Your task to perform on an android device: turn off smart reply in the gmail app Image 0: 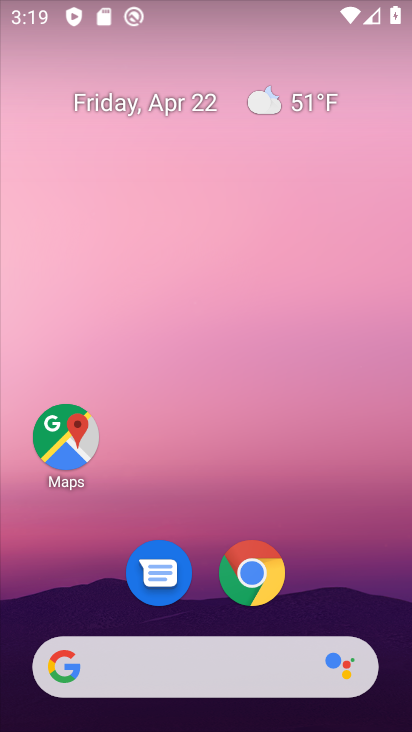
Step 0: drag from (304, 615) to (308, 151)
Your task to perform on an android device: turn off smart reply in the gmail app Image 1: 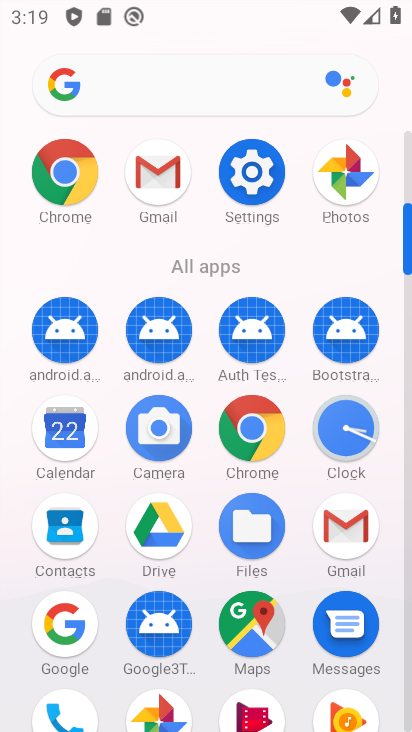
Step 1: click (336, 529)
Your task to perform on an android device: turn off smart reply in the gmail app Image 2: 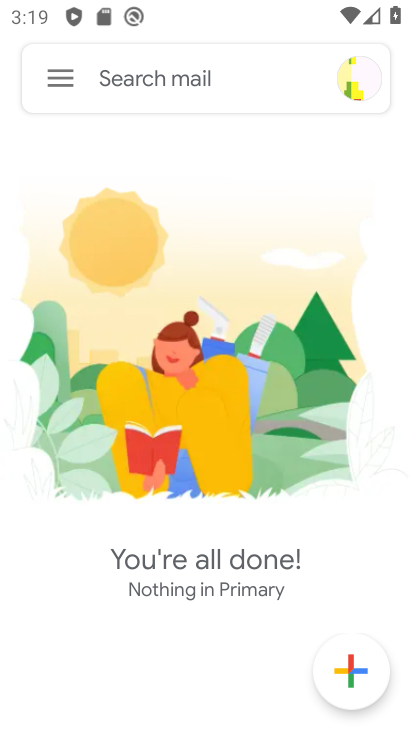
Step 2: click (69, 75)
Your task to perform on an android device: turn off smart reply in the gmail app Image 3: 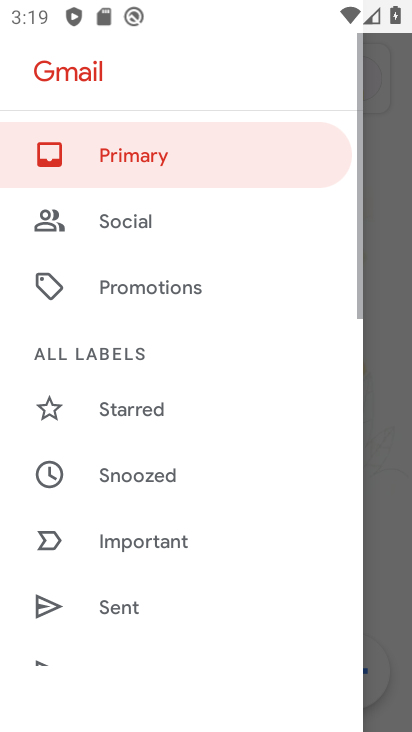
Step 3: drag from (245, 504) to (299, 110)
Your task to perform on an android device: turn off smart reply in the gmail app Image 4: 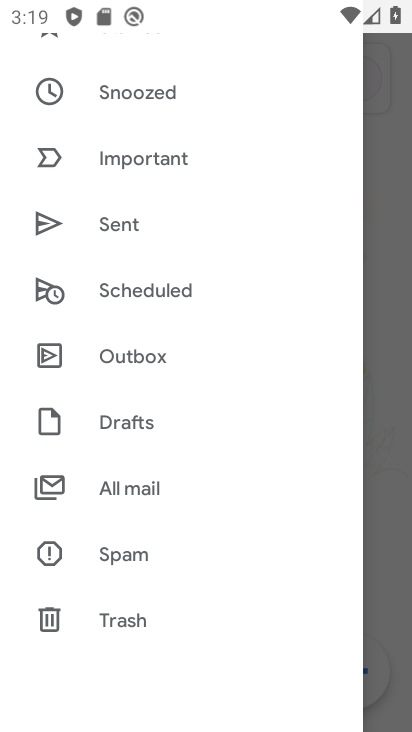
Step 4: drag from (193, 562) to (244, 194)
Your task to perform on an android device: turn off smart reply in the gmail app Image 5: 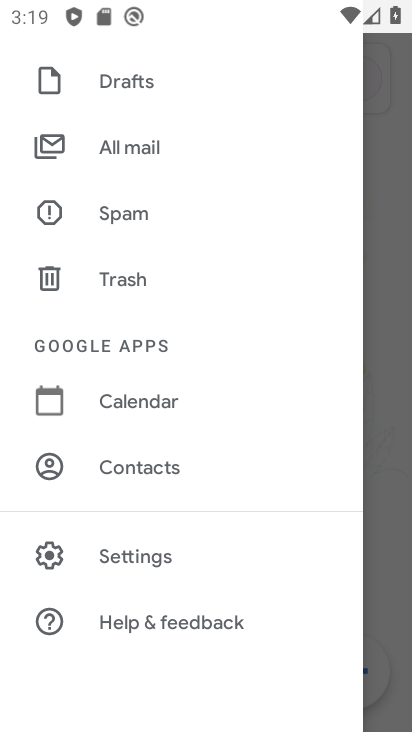
Step 5: click (187, 556)
Your task to perform on an android device: turn off smart reply in the gmail app Image 6: 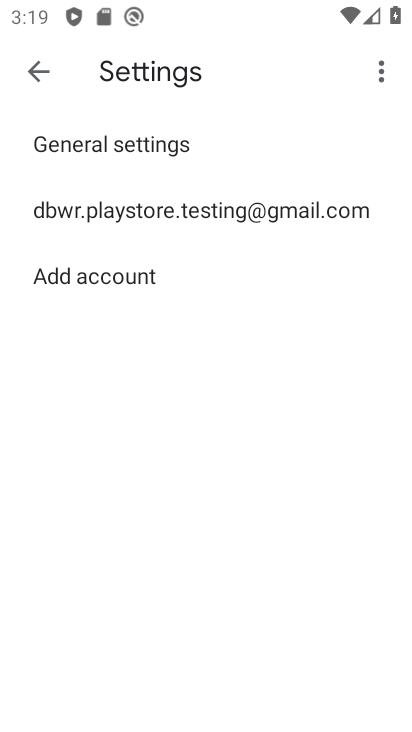
Step 6: click (229, 216)
Your task to perform on an android device: turn off smart reply in the gmail app Image 7: 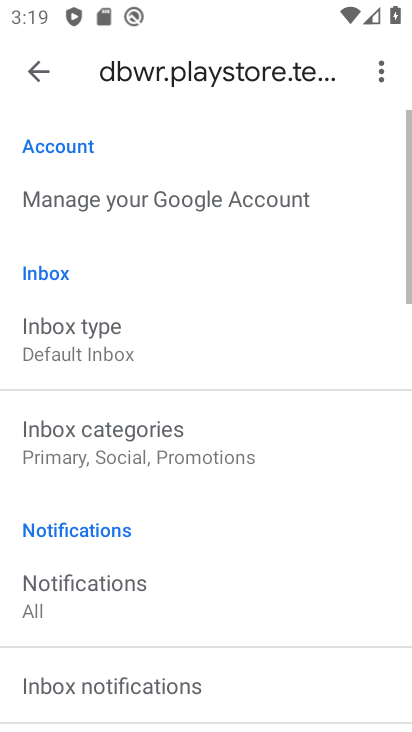
Step 7: drag from (196, 592) to (231, 170)
Your task to perform on an android device: turn off smart reply in the gmail app Image 8: 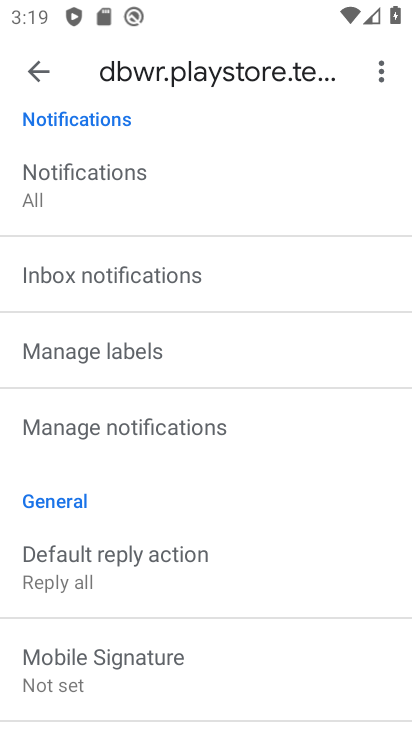
Step 8: drag from (226, 466) to (254, 164)
Your task to perform on an android device: turn off smart reply in the gmail app Image 9: 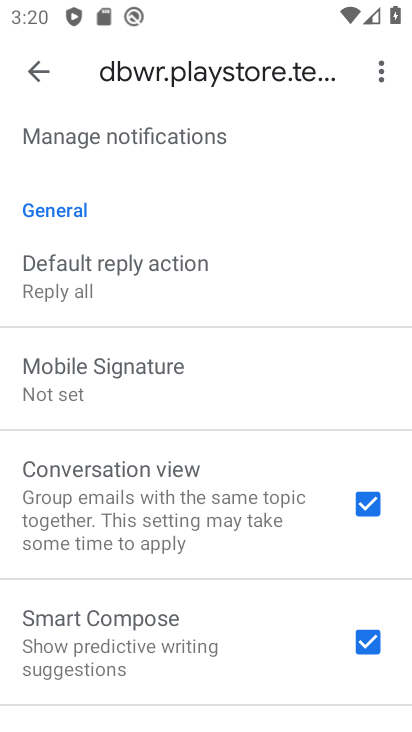
Step 9: drag from (255, 621) to (281, 157)
Your task to perform on an android device: turn off smart reply in the gmail app Image 10: 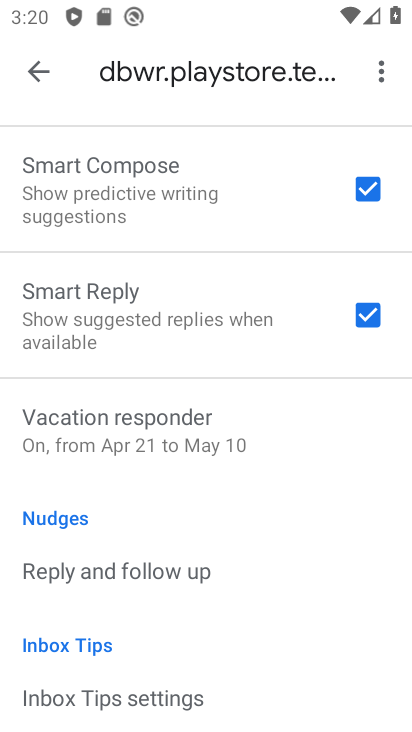
Step 10: drag from (276, 163) to (274, 227)
Your task to perform on an android device: turn off smart reply in the gmail app Image 11: 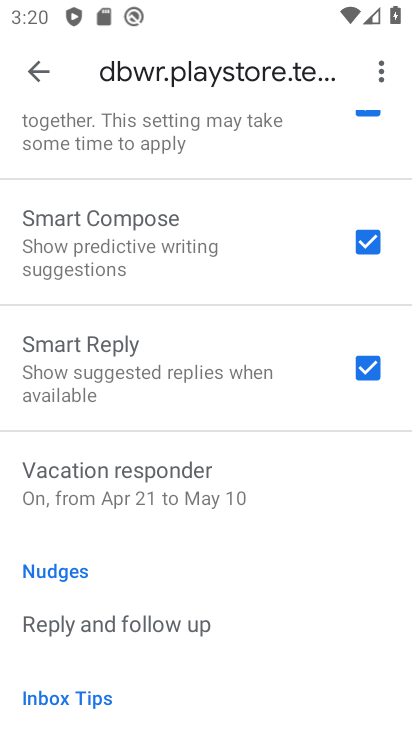
Step 11: click (369, 368)
Your task to perform on an android device: turn off smart reply in the gmail app Image 12: 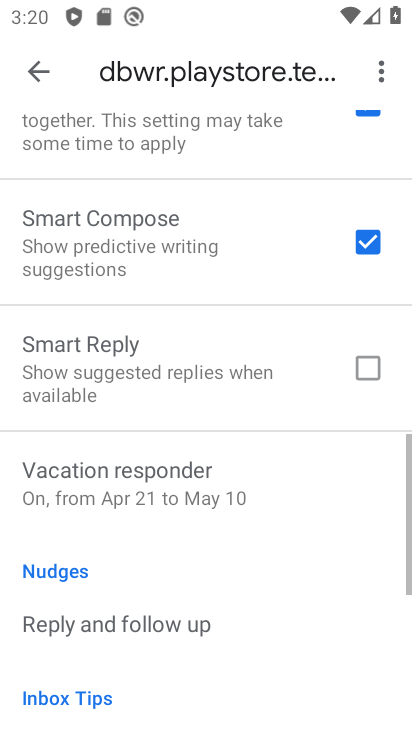
Step 12: task complete